Your task to perform on an android device: snooze an email in the gmail app Image 0: 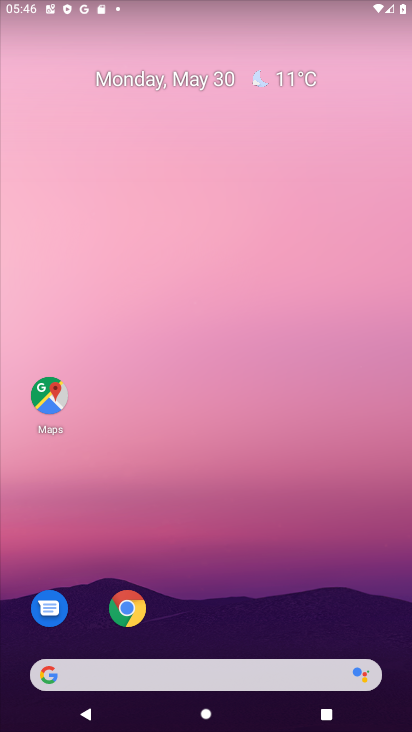
Step 0: click (234, 310)
Your task to perform on an android device: snooze an email in the gmail app Image 1: 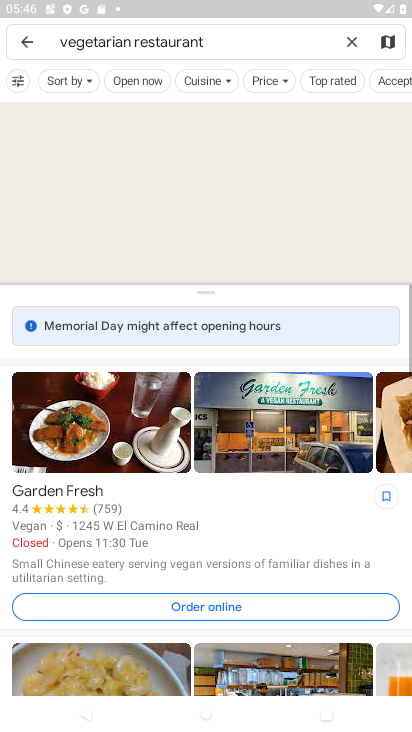
Step 1: press home button
Your task to perform on an android device: snooze an email in the gmail app Image 2: 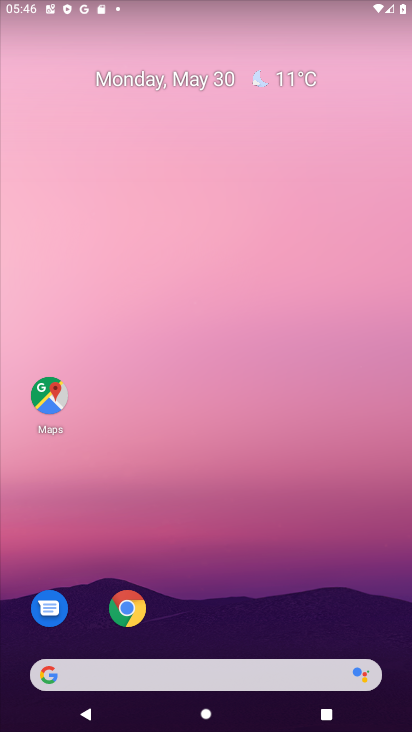
Step 2: drag from (201, 660) to (223, 211)
Your task to perform on an android device: snooze an email in the gmail app Image 3: 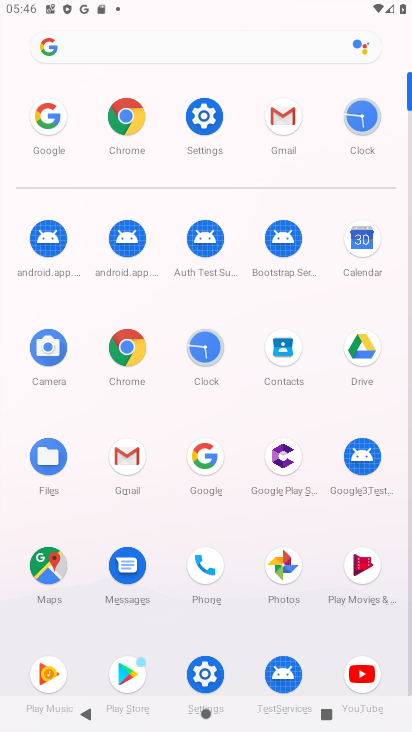
Step 3: click (129, 455)
Your task to perform on an android device: snooze an email in the gmail app Image 4: 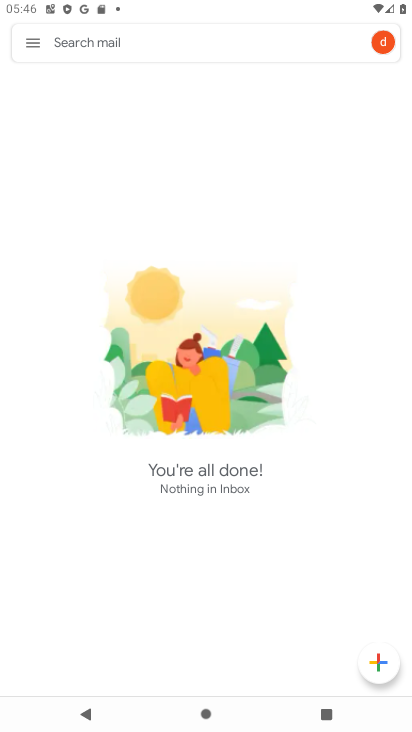
Step 4: task complete